Your task to perform on an android device: Open Youtube and go to "Your channel" Image 0: 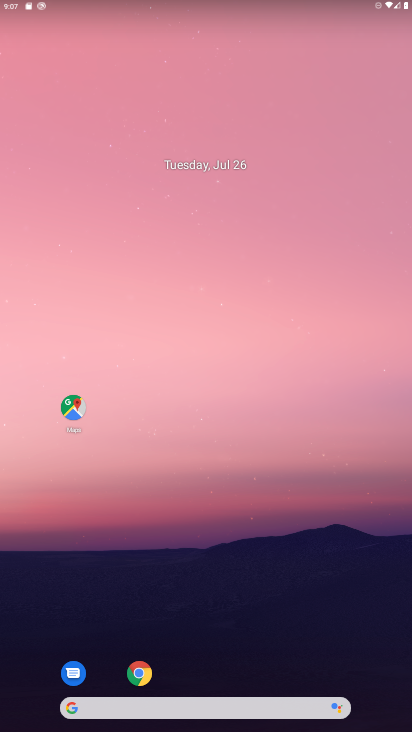
Step 0: drag from (257, 663) to (293, 21)
Your task to perform on an android device: Open Youtube and go to "Your channel" Image 1: 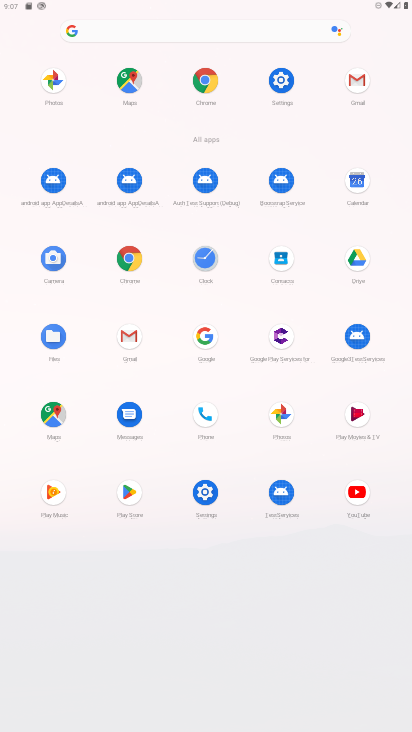
Step 1: click (352, 503)
Your task to perform on an android device: Open Youtube and go to "Your channel" Image 2: 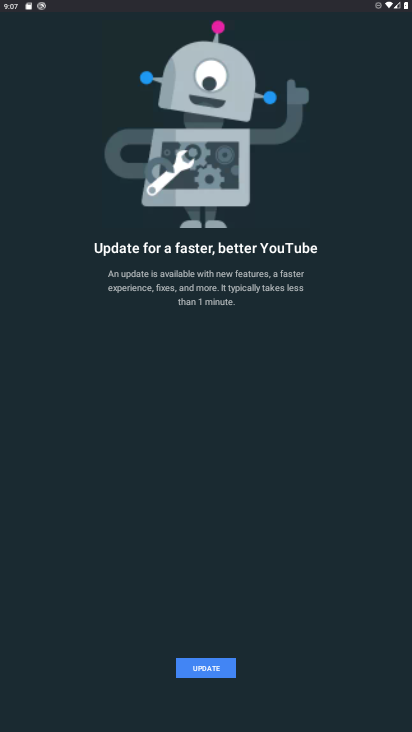
Step 2: click (225, 668)
Your task to perform on an android device: Open Youtube and go to "Your channel" Image 3: 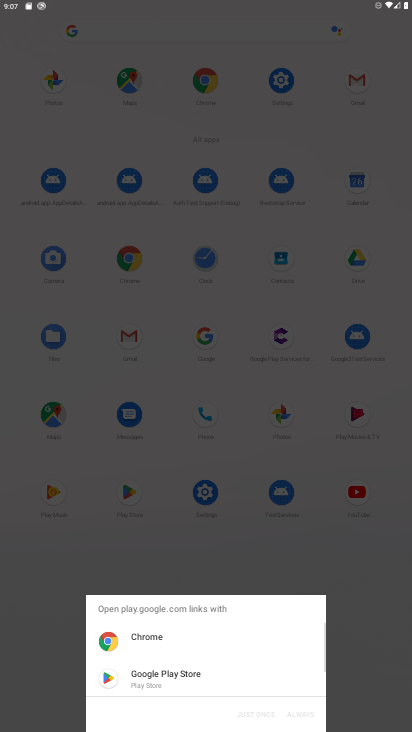
Step 3: click (146, 684)
Your task to perform on an android device: Open Youtube and go to "Your channel" Image 4: 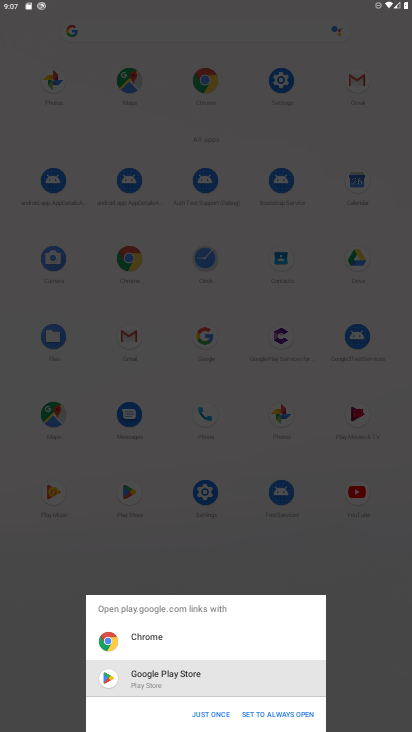
Step 4: click (199, 718)
Your task to perform on an android device: Open Youtube and go to "Your channel" Image 5: 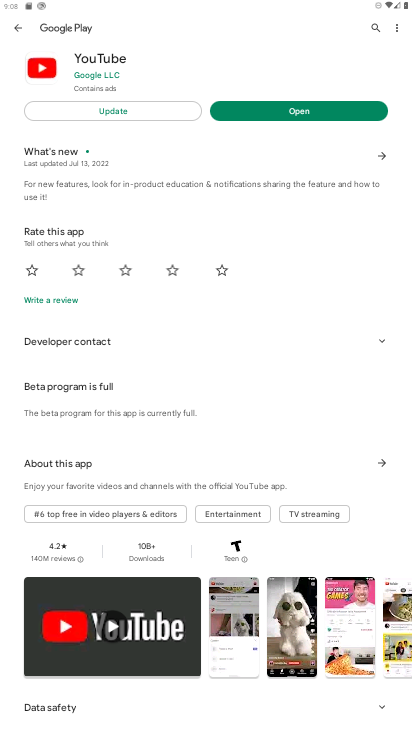
Step 5: click (114, 106)
Your task to perform on an android device: Open Youtube and go to "Your channel" Image 6: 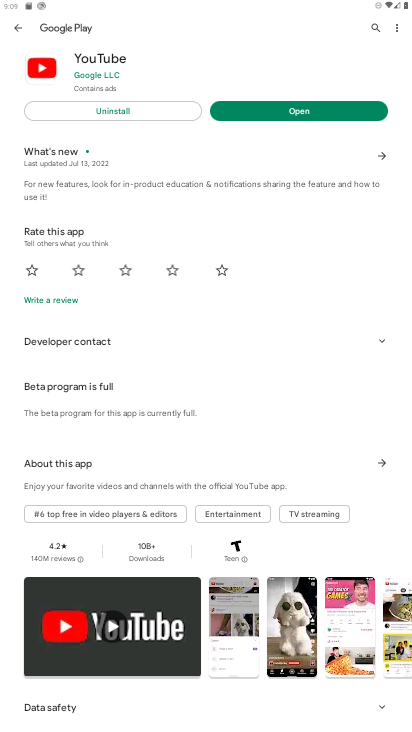
Step 6: click (282, 111)
Your task to perform on an android device: Open Youtube and go to "Your channel" Image 7: 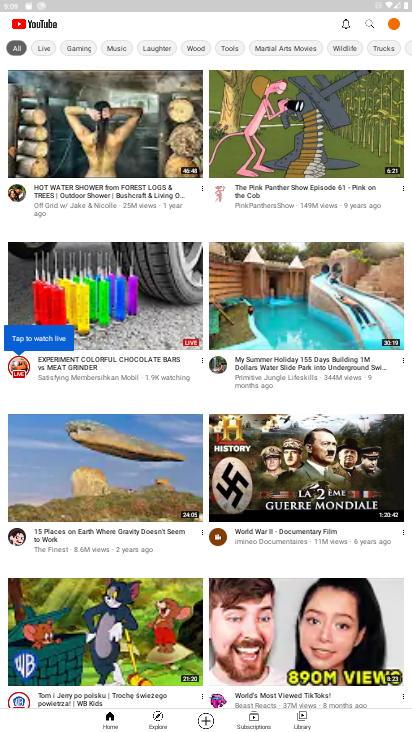
Step 7: click (392, 25)
Your task to perform on an android device: Open Youtube and go to "Your channel" Image 8: 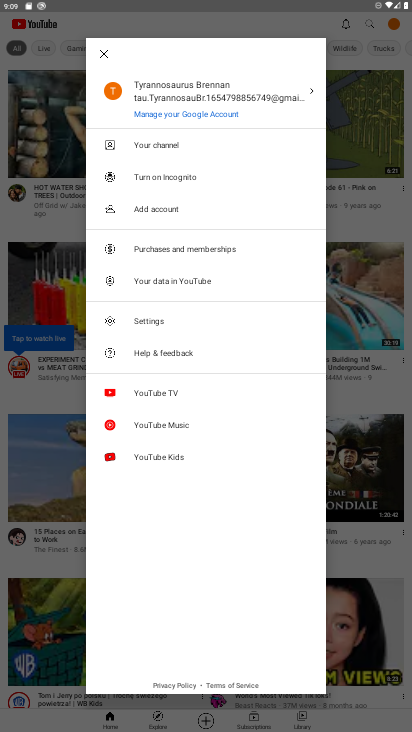
Step 8: click (139, 147)
Your task to perform on an android device: Open Youtube and go to "Your channel" Image 9: 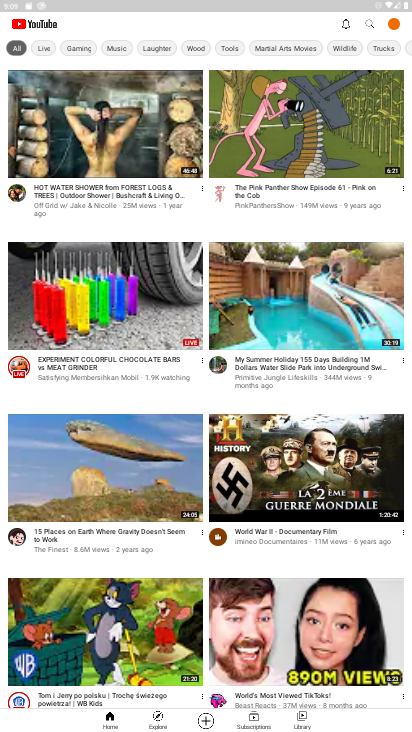
Step 9: task complete